Your task to perform on an android device: Go to calendar. Show me events next week Image 0: 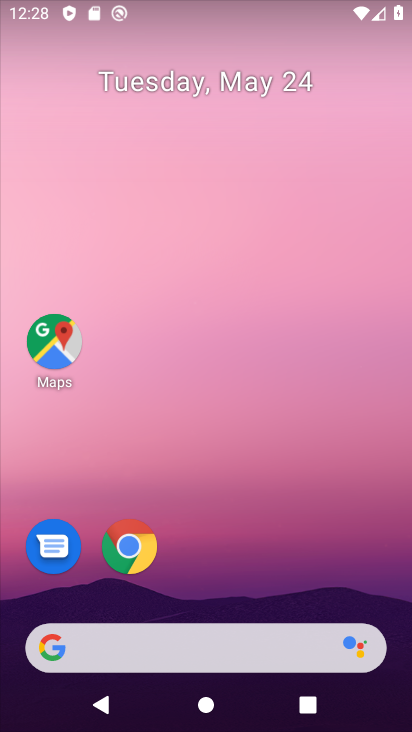
Step 0: drag from (199, 640) to (289, 173)
Your task to perform on an android device: Go to calendar. Show me events next week Image 1: 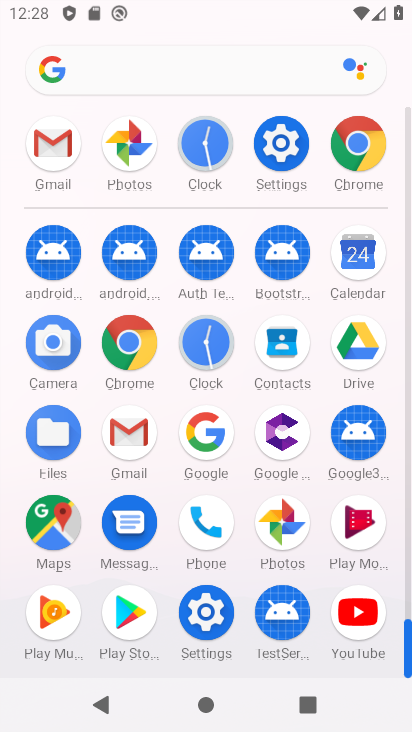
Step 1: click (353, 260)
Your task to perform on an android device: Go to calendar. Show me events next week Image 2: 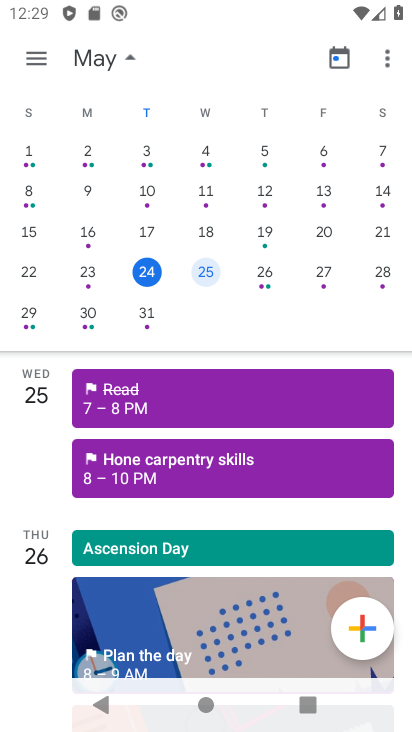
Step 2: click (205, 272)
Your task to perform on an android device: Go to calendar. Show me events next week Image 3: 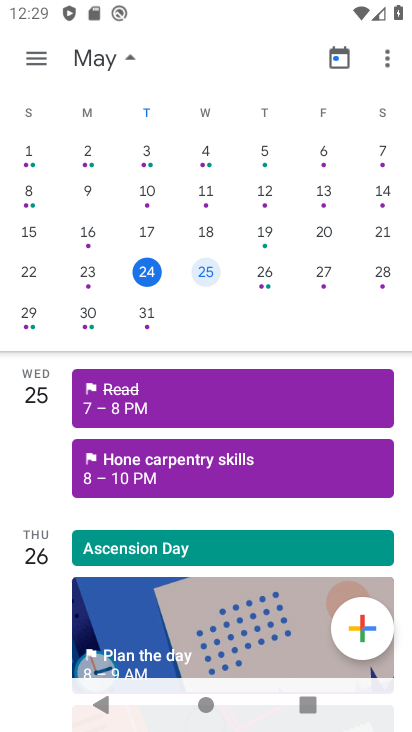
Step 3: task complete